Your task to perform on an android device: Go to settings Image 0: 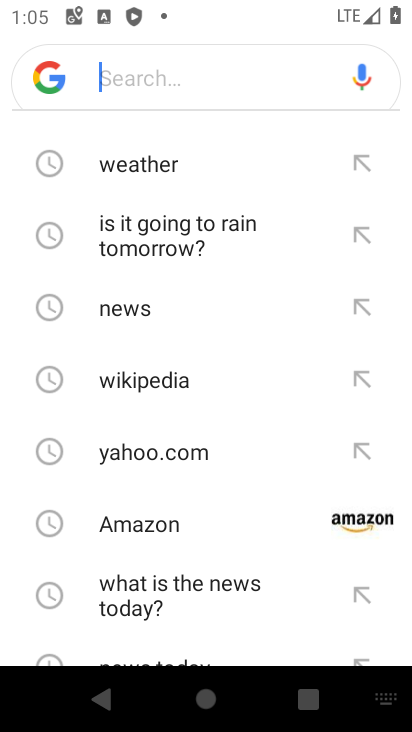
Step 0: press home button
Your task to perform on an android device: Go to settings Image 1: 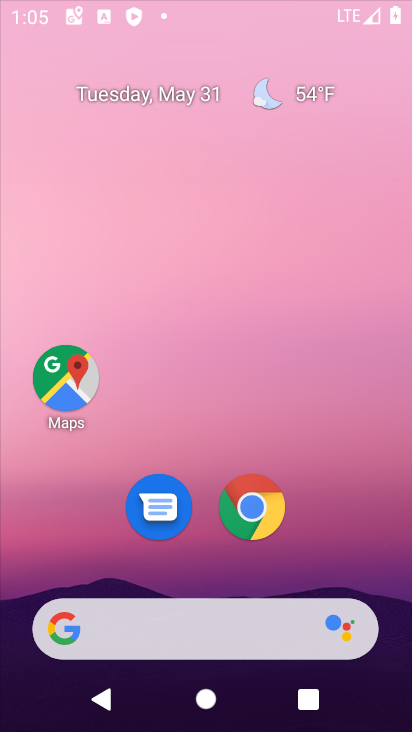
Step 1: drag from (363, 608) to (329, 28)
Your task to perform on an android device: Go to settings Image 2: 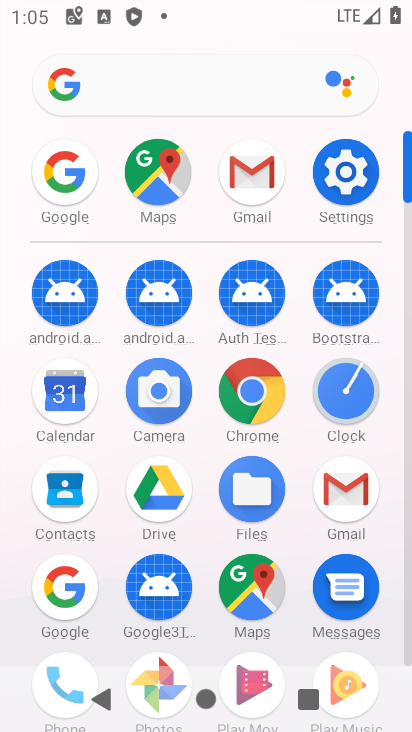
Step 2: click (346, 192)
Your task to perform on an android device: Go to settings Image 3: 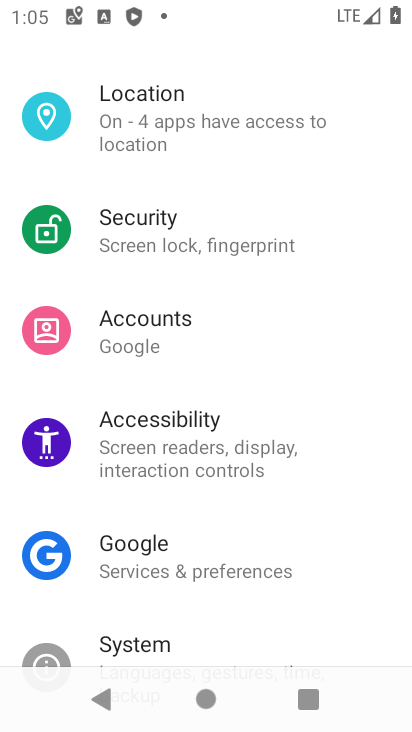
Step 3: task complete